Your task to perform on an android device: What's the news in the Dominican Republic? Image 0: 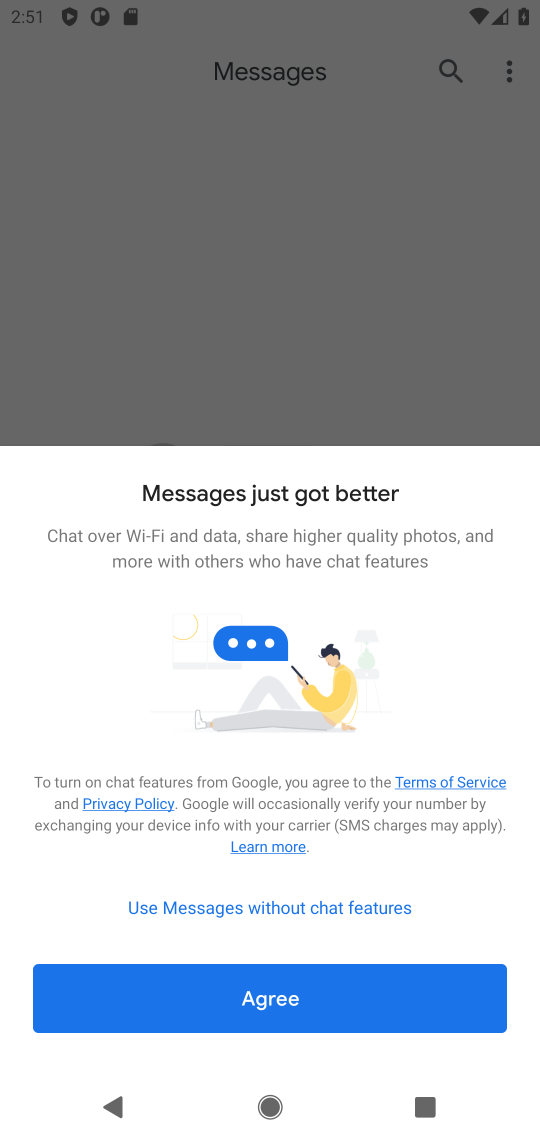
Step 0: press back button
Your task to perform on an android device: What's the news in the Dominican Republic? Image 1: 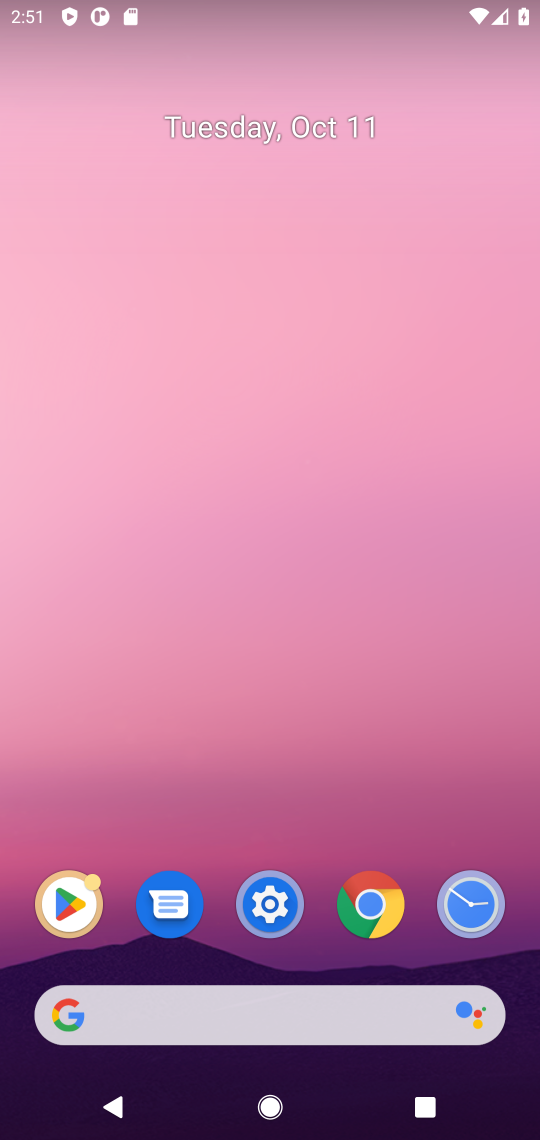
Step 1: press back button
Your task to perform on an android device: What's the news in the Dominican Republic? Image 2: 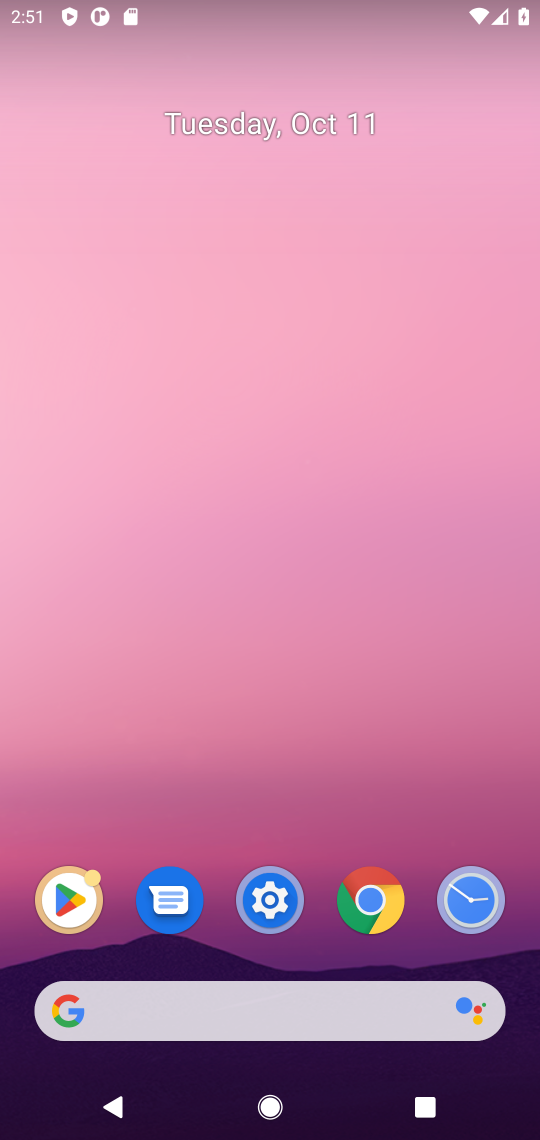
Step 2: click (186, 1024)
Your task to perform on an android device: What's the news in the Dominican Republic? Image 3: 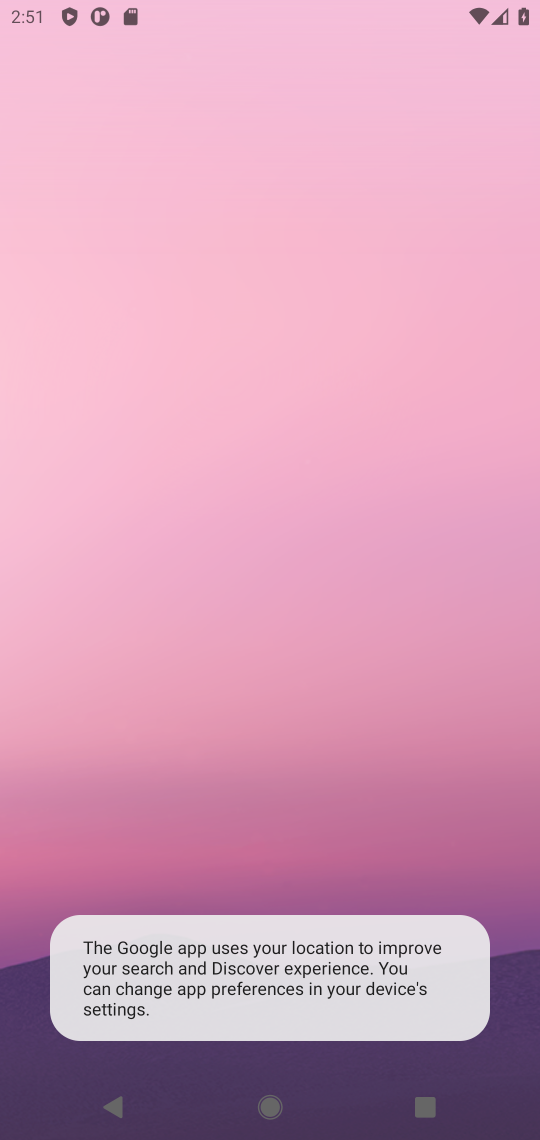
Step 3: click (186, 1024)
Your task to perform on an android device: What's the news in the Dominican Republic? Image 4: 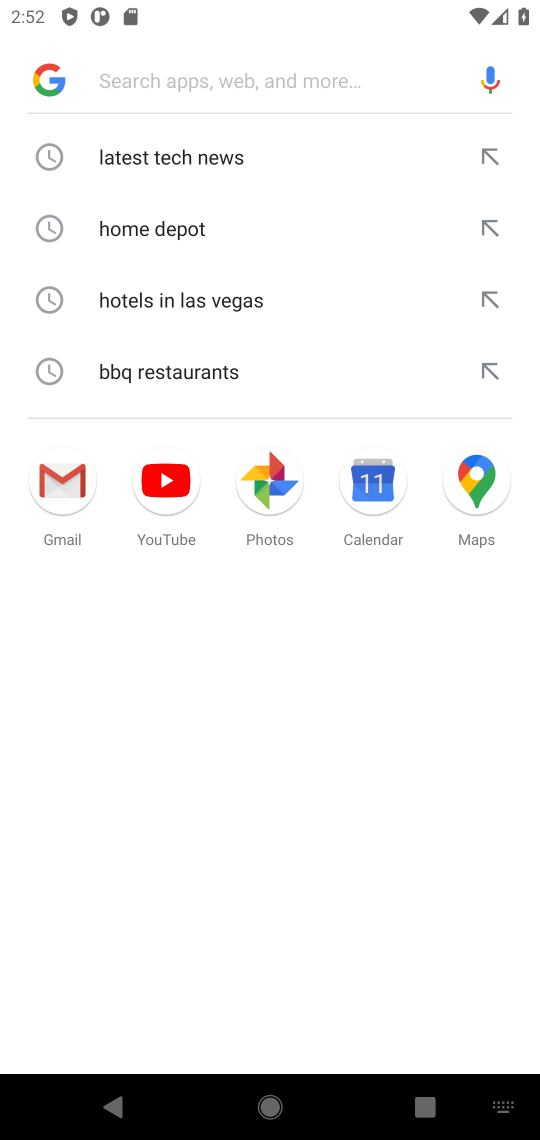
Step 4: type "the news in the Dominican Republic?"
Your task to perform on an android device: What's the news in the Dominican Republic? Image 5: 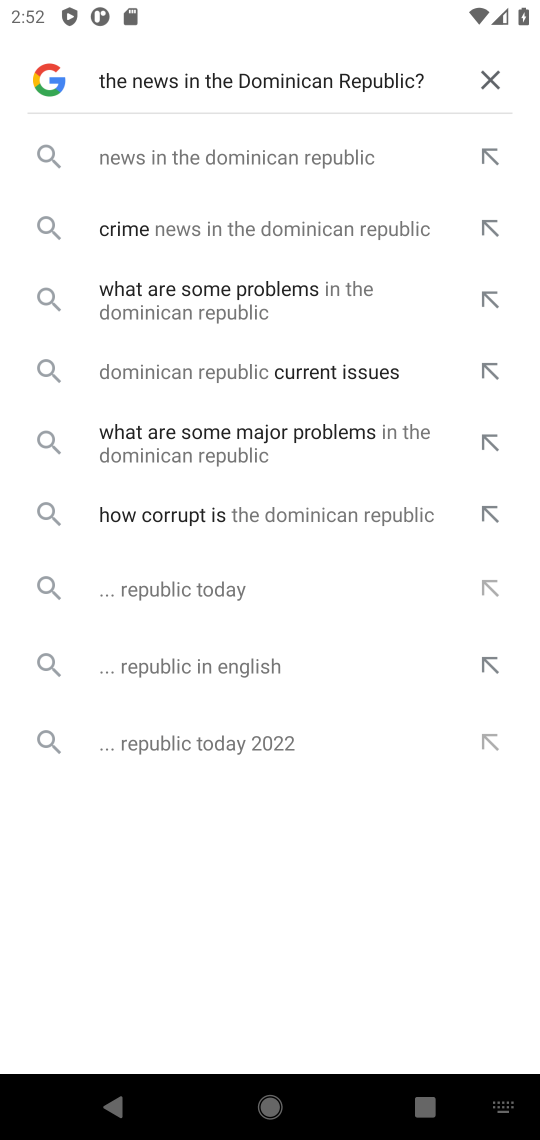
Step 5: click (335, 166)
Your task to perform on an android device: What's the news in the Dominican Republic? Image 6: 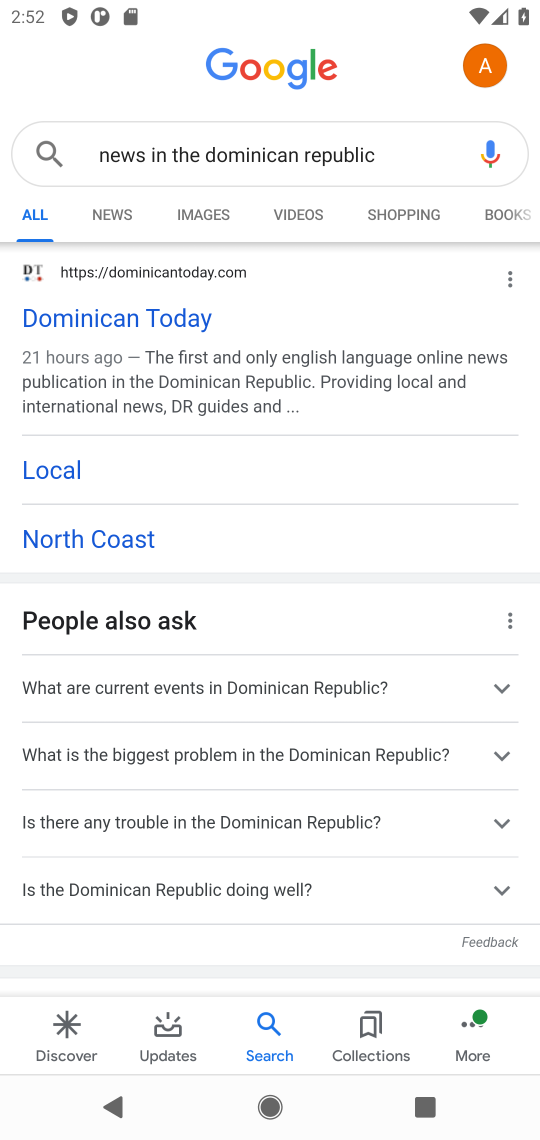
Step 6: click (97, 300)
Your task to perform on an android device: What's the news in the Dominican Republic? Image 7: 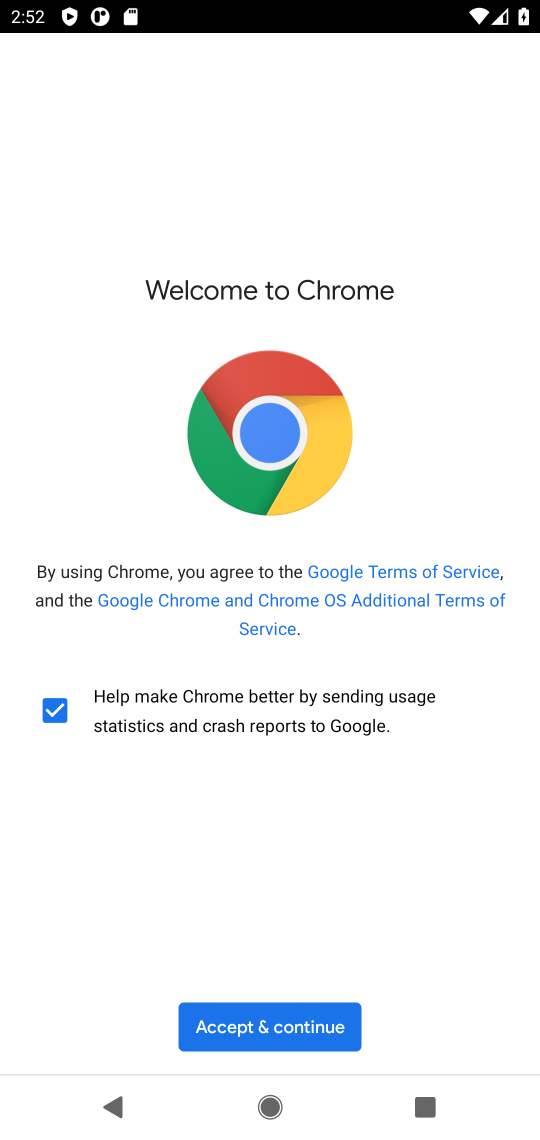
Step 7: click (299, 1019)
Your task to perform on an android device: What's the news in the Dominican Republic? Image 8: 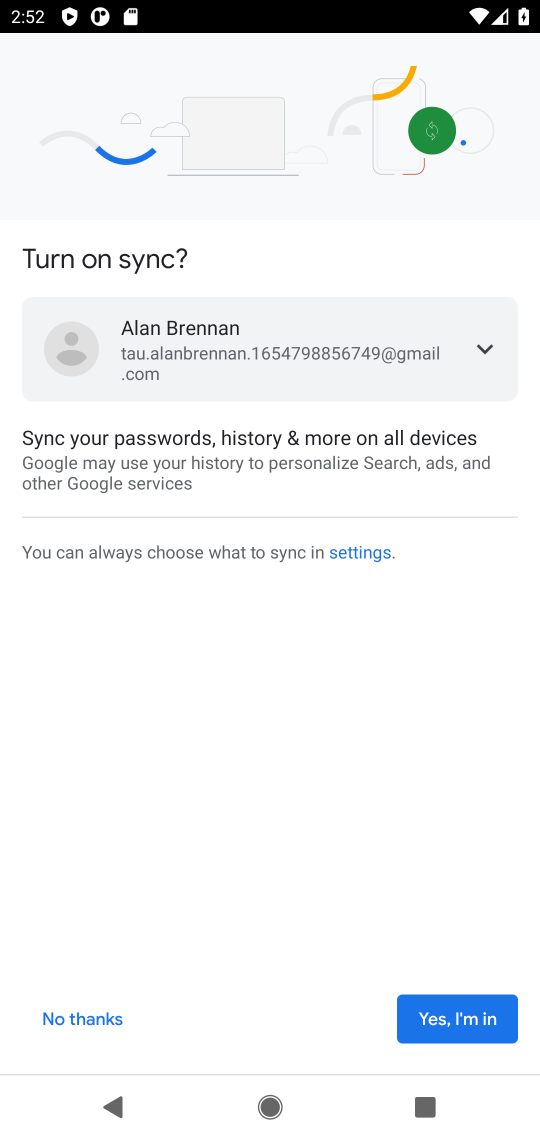
Step 8: click (433, 1009)
Your task to perform on an android device: What's the news in the Dominican Republic? Image 9: 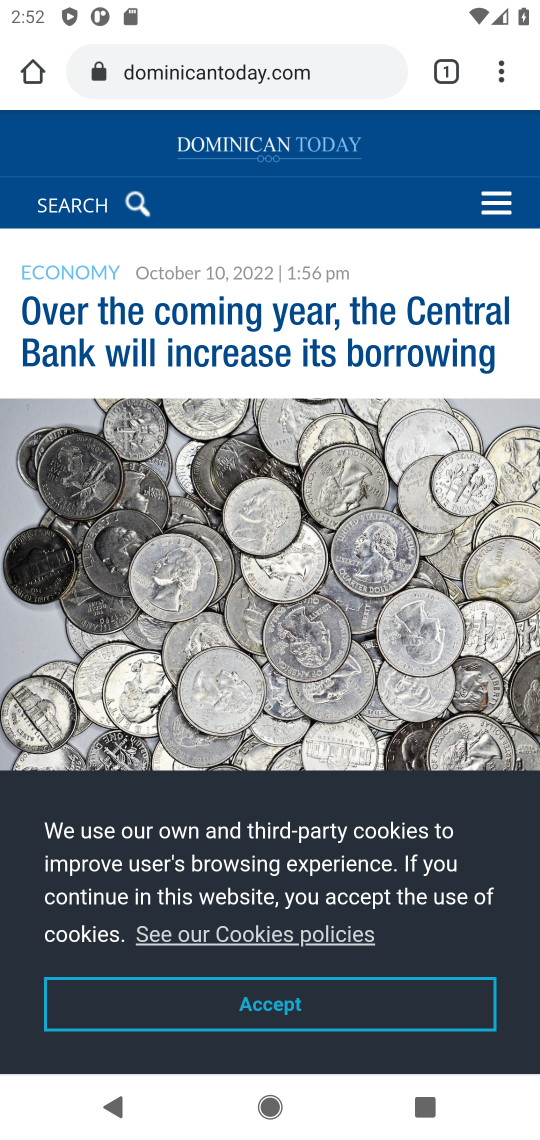
Step 9: click (503, 965)
Your task to perform on an android device: What's the news in the Dominican Republic? Image 10: 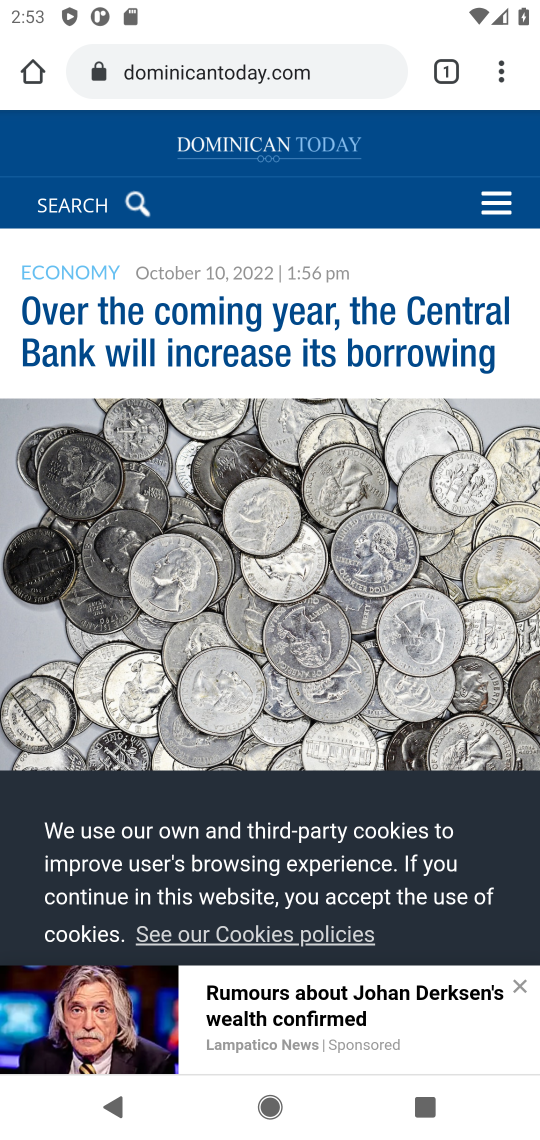
Step 10: drag from (506, 911) to (501, 554)
Your task to perform on an android device: What's the news in the Dominican Republic? Image 11: 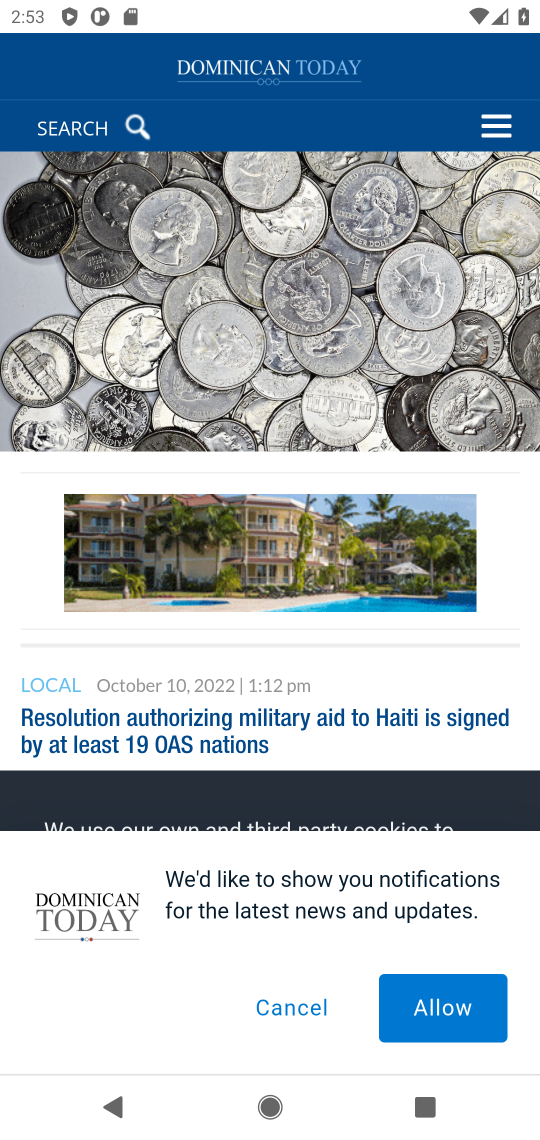
Step 11: click (417, 1000)
Your task to perform on an android device: What's the news in the Dominican Republic? Image 12: 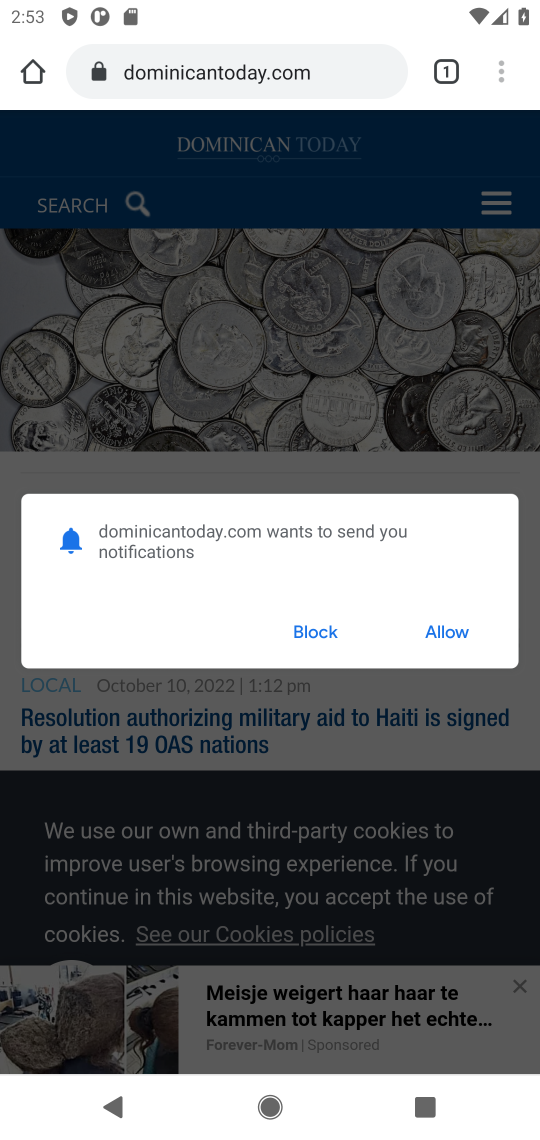
Step 12: click (458, 635)
Your task to perform on an android device: What's the news in the Dominican Republic? Image 13: 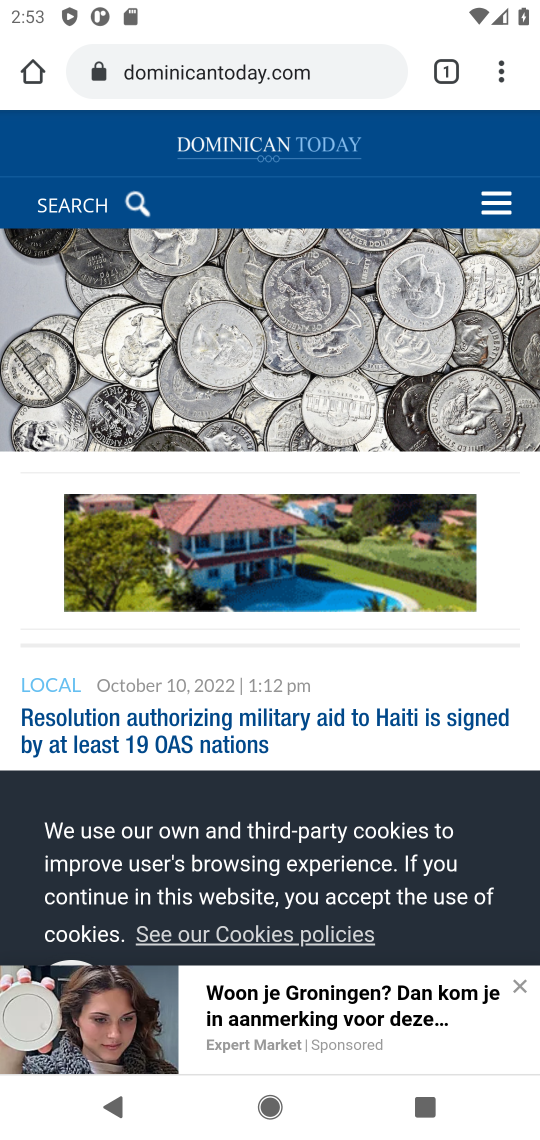
Step 13: drag from (479, 714) to (501, 192)
Your task to perform on an android device: What's the news in the Dominican Republic? Image 14: 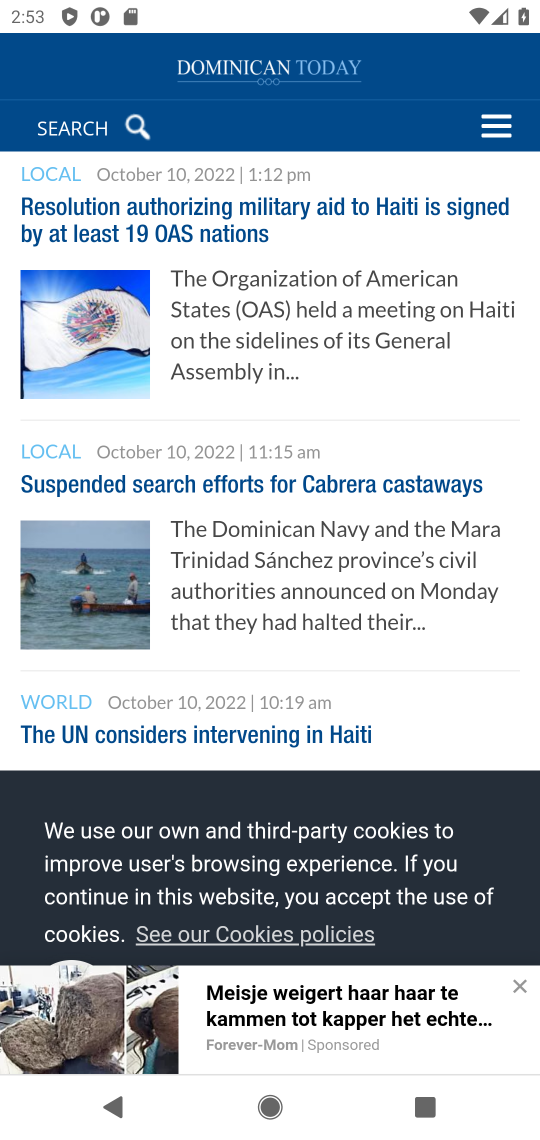
Step 14: click (516, 983)
Your task to perform on an android device: What's the news in the Dominican Republic? Image 15: 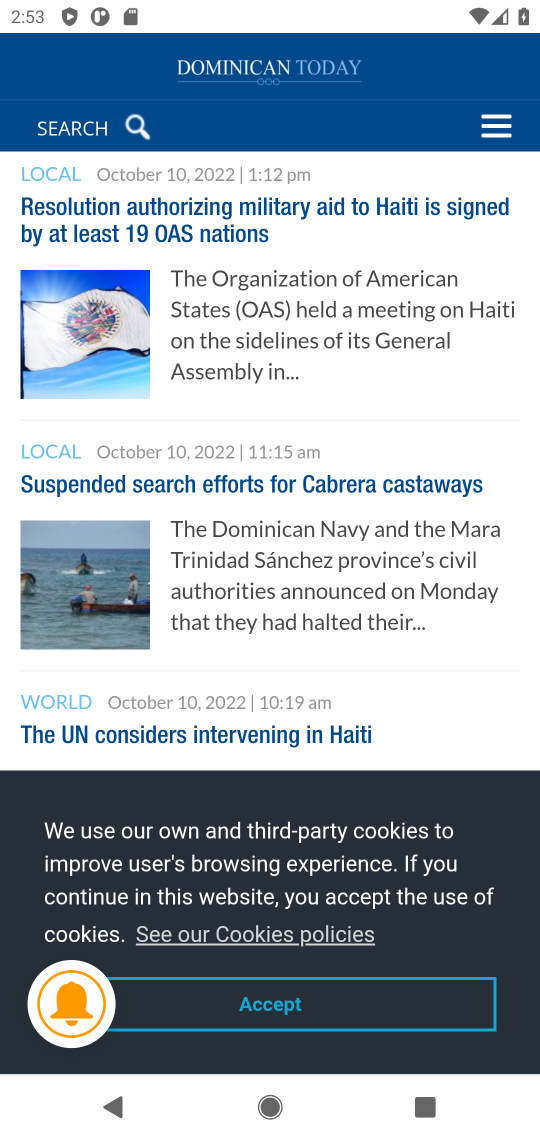
Step 15: click (251, 997)
Your task to perform on an android device: What's the news in the Dominican Republic? Image 16: 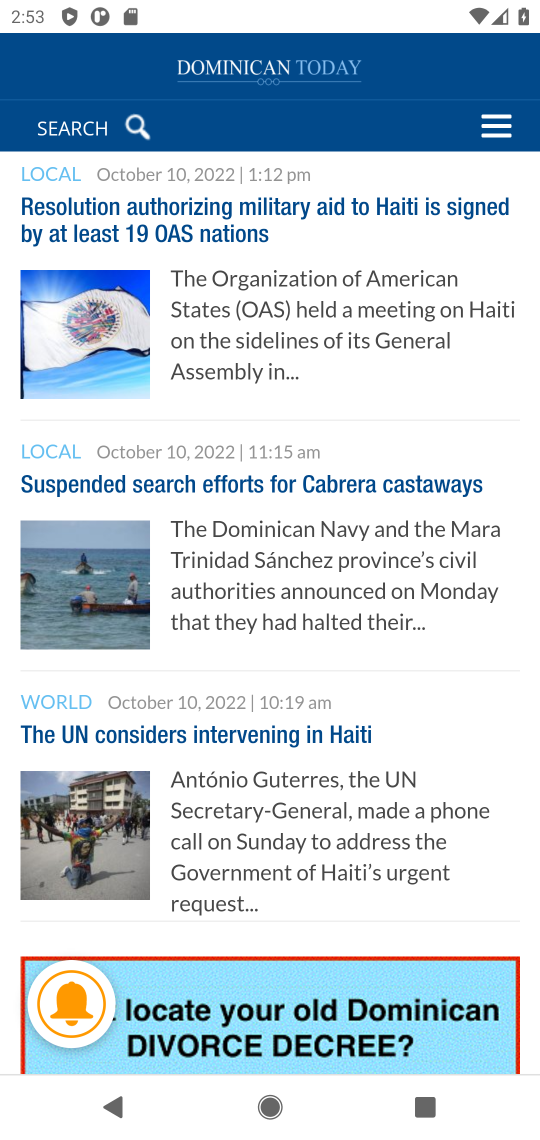
Step 16: task complete